Your task to perform on an android device: open a bookmark in the chrome app Image 0: 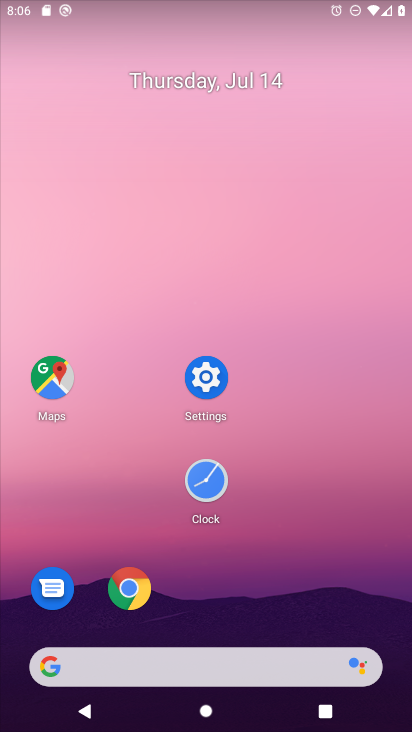
Step 0: click (115, 590)
Your task to perform on an android device: open a bookmark in the chrome app Image 1: 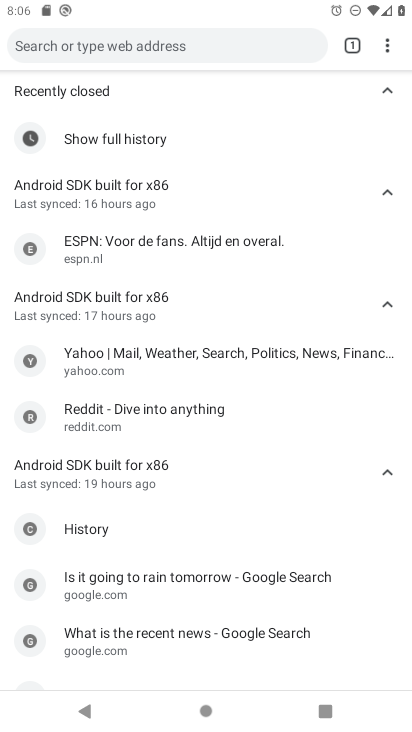
Step 1: click (385, 38)
Your task to perform on an android device: open a bookmark in the chrome app Image 2: 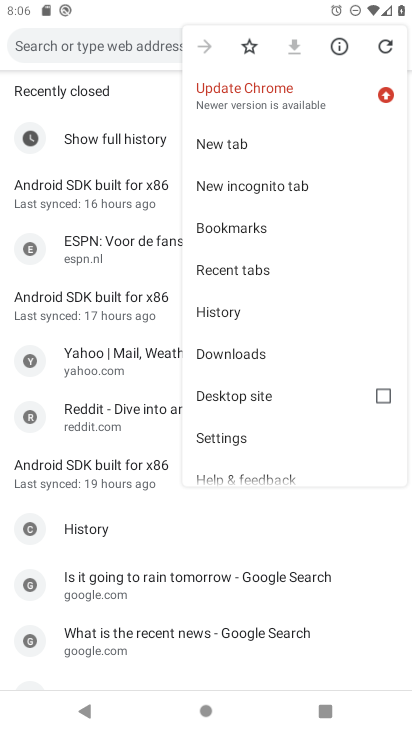
Step 2: click (252, 228)
Your task to perform on an android device: open a bookmark in the chrome app Image 3: 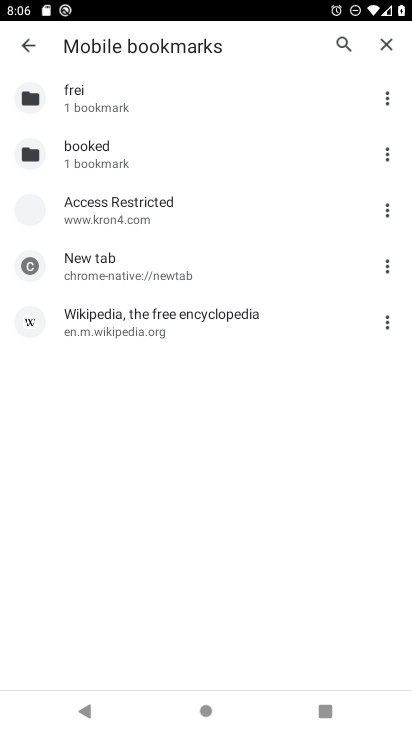
Step 3: click (118, 318)
Your task to perform on an android device: open a bookmark in the chrome app Image 4: 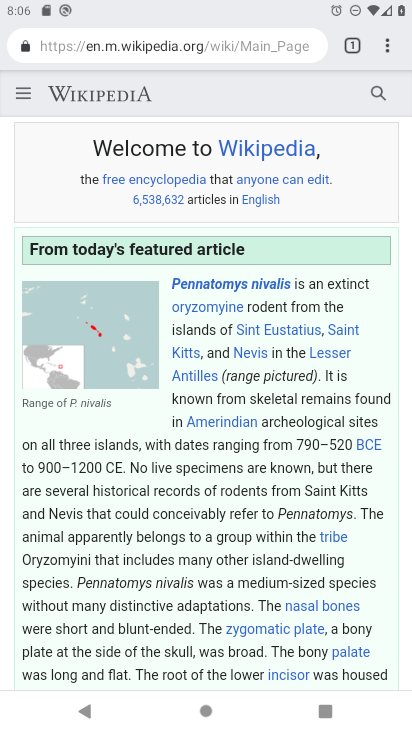
Step 4: task complete